Your task to perform on an android device: Is it going to rain tomorrow? Image 0: 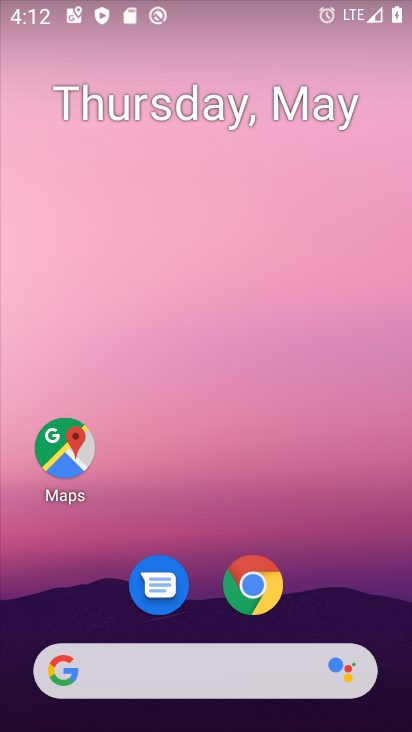
Step 0: click (244, 678)
Your task to perform on an android device: Is it going to rain tomorrow? Image 1: 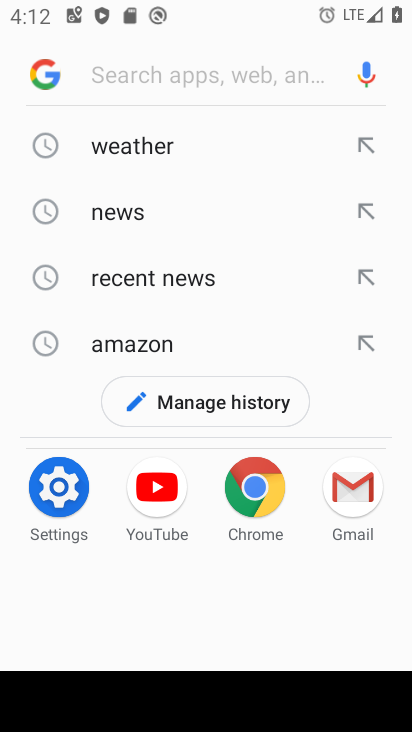
Step 1: click (121, 150)
Your task to perform on an android device: Is it going to rain tomorrow? Image 2: 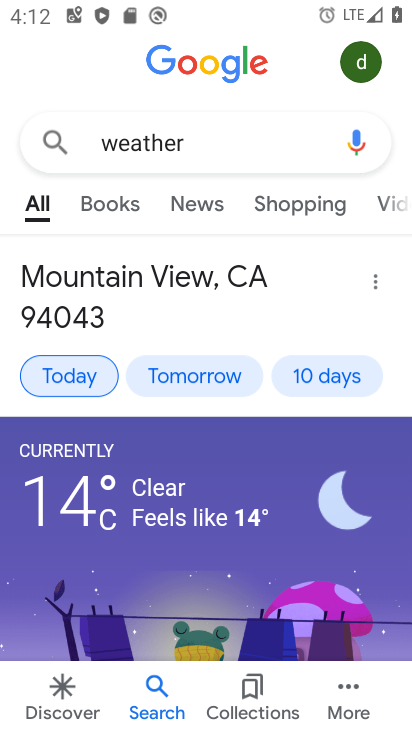
Step 2: click (96, 368)
Your task to perform on an android device: Is it going to rain tomorrow? Image 3: 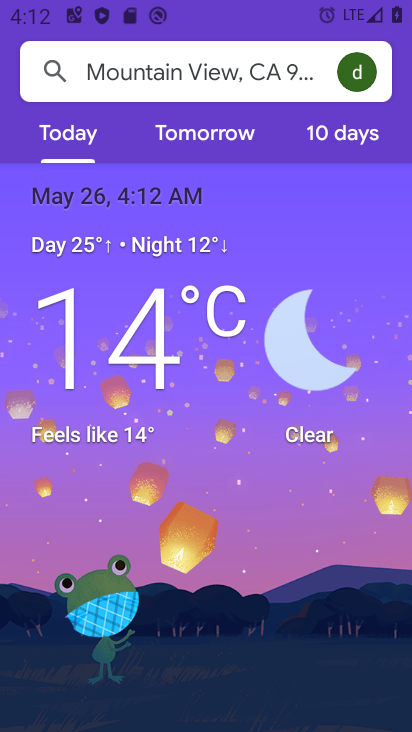
Step 3: click (206, 140)
Your task to perform on an android device: Is it going to rain tomorrow? Image 4: 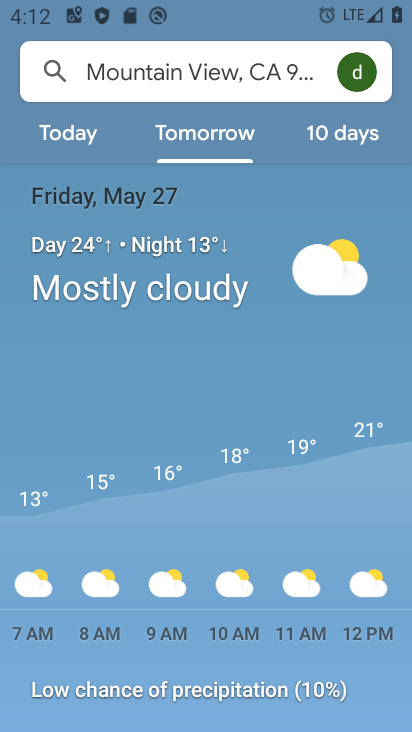
Step 4: task complete